Your task to perform on an android device: stop showing notifications on the lock screen Image 0: 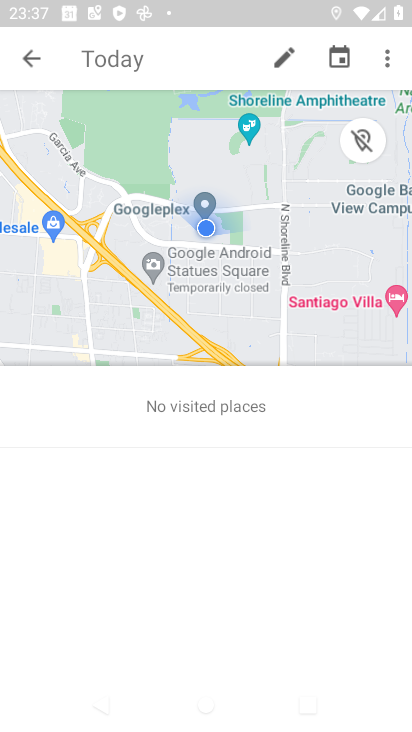
Step 0: press home button
Your task to perform on an android device: stop showing notifications on the lock screen Image 1: 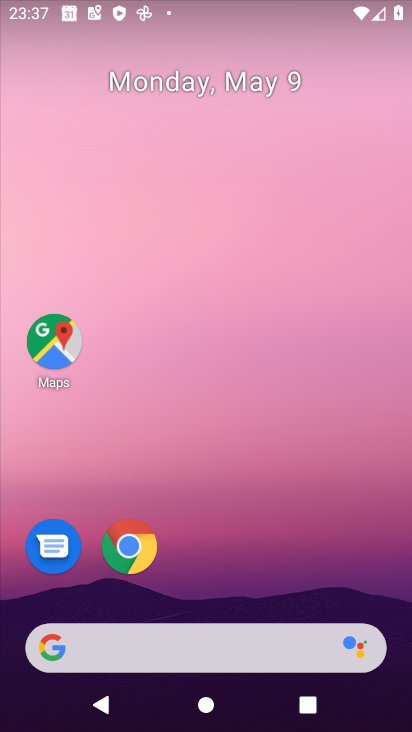
Step 1: drag from (231, 704) to (249, 15)
Your task to perform on an android device: stop showing notifications on the lock screen Image 2: 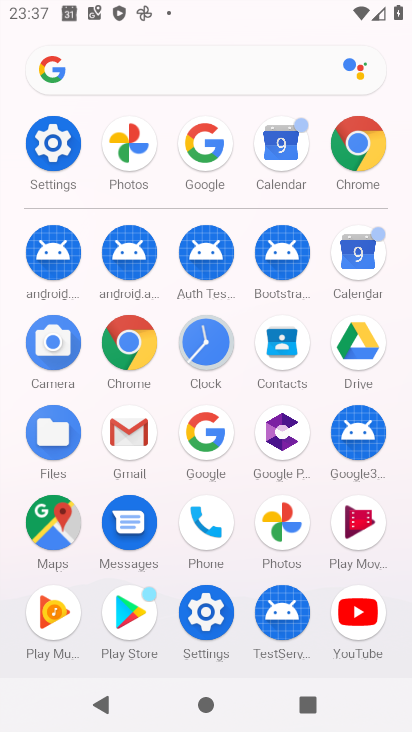
Step 2: click (44, 139)
Your task to perform on an android device: stop showing notifications on the lock screen Image 3: 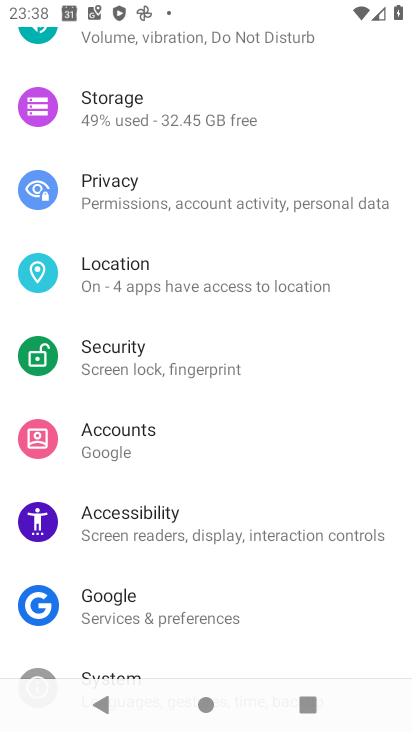
Step 3: drag from (200, 110) to (203, 709)
Your task to perform on an android device: stop showing notifications on the lock screen Image 4: 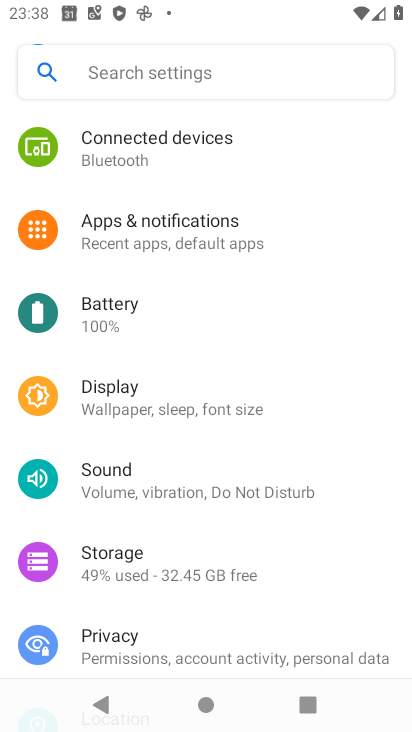
Step 4: click (208, 252)
Your task to perform on an android device: stop showing notifications on the lock screen Image 5: 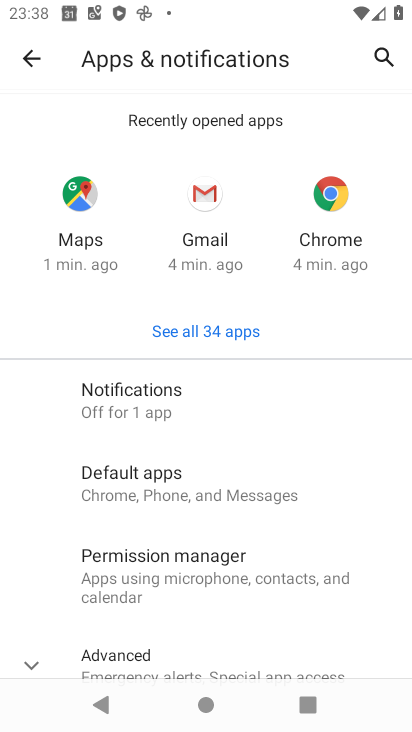
Step 5: click (165, 381)
Your task to perform on an android device: stop showing notifications on the lock screen Image 6: 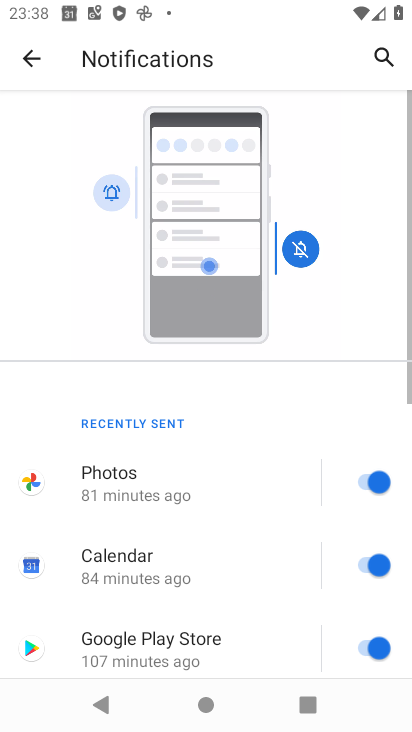
Step 6: drag from (253, 632) to (253, 212)
Your task to perform on an android device: stop showing notifications on the lock screen Image 7: 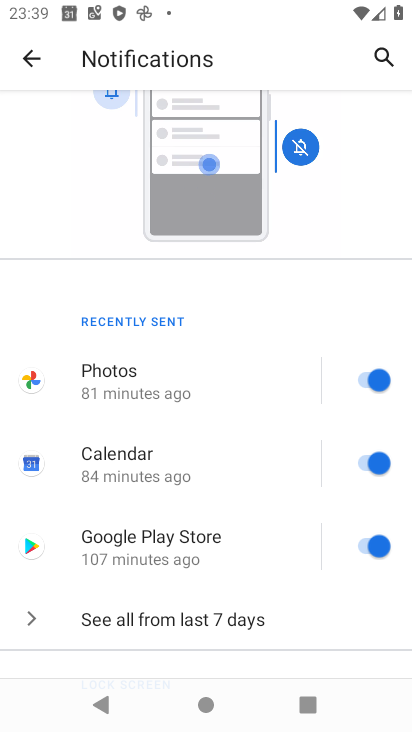
Step 7: drag from (268, 588) to (268, 119)
Your task to perform on an android device: stop showing notifications on the lock screen Image 8: 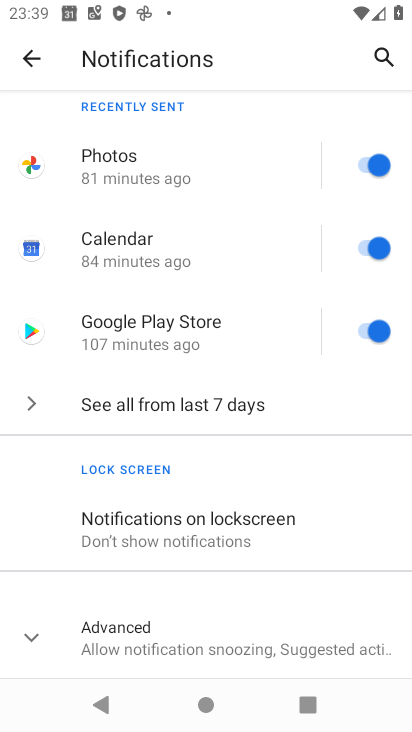
Step 8: click (196, 523)
Your task to perform on an android device: stop showing notifications on the lock screen Image 9: 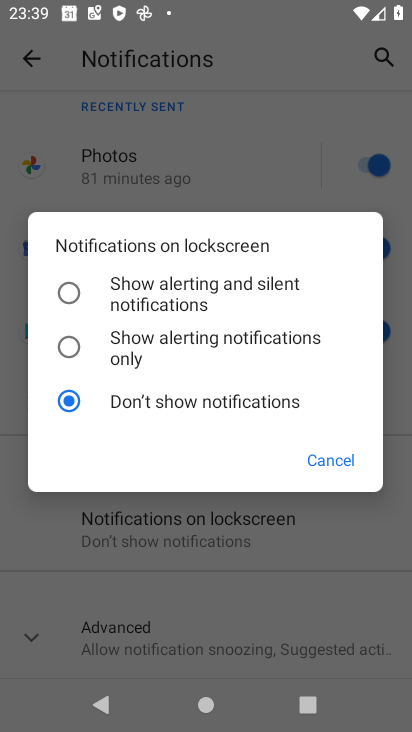
Step 9: task complete